Your task to perform on an android device: open a bookmark in the chrome app Image 0: 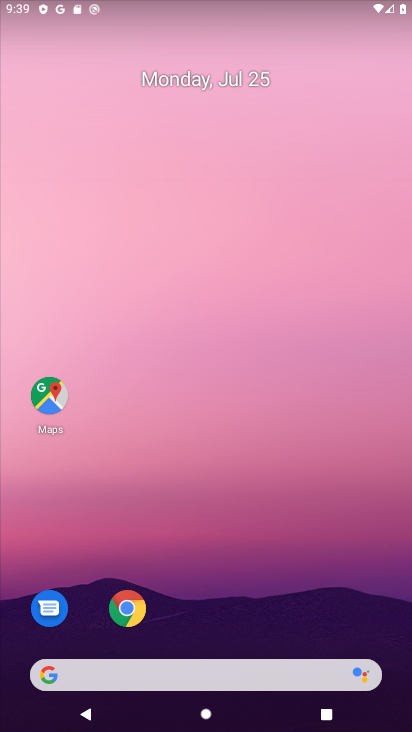
Step 0: drag from (227, 657) to (287, 145)
Your task to perform on an android device: open a bookmark in the chrome app Image 1: 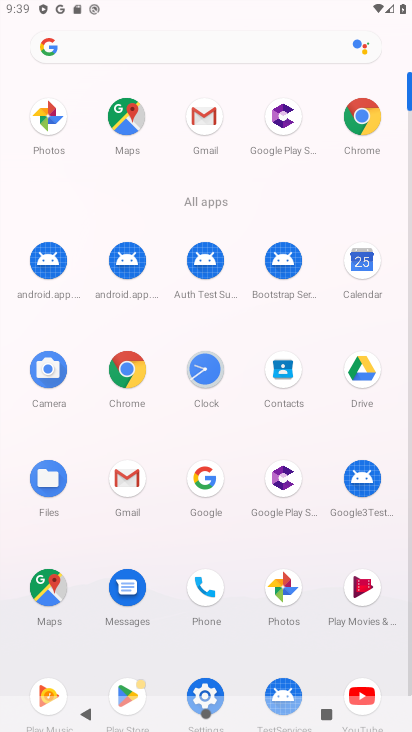
Step 1: click (361, 134)
Your task to perform on an android device: open a bookmark in the chrome app Image 2: 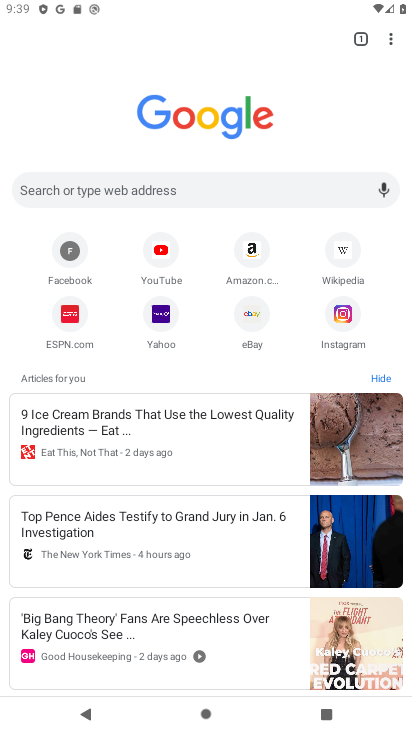
Step 2: click (391, 42)
Your task to perform on an android device: open a bookmark in the chrome app Image 3: 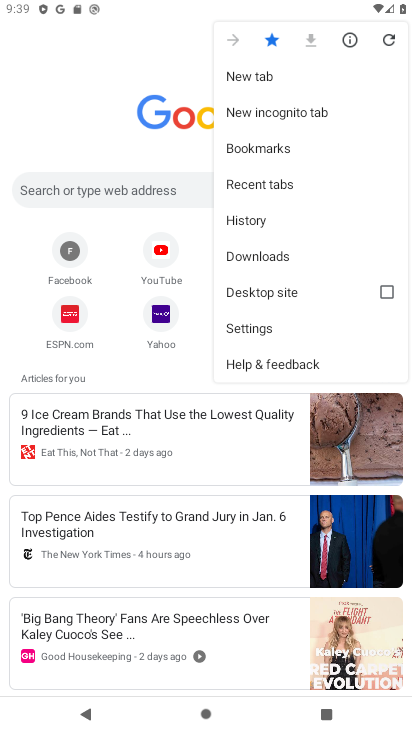
Step 3: click (269, 147)
Your task to perform on an android device: open a bookmark in the chrome app Image 4: 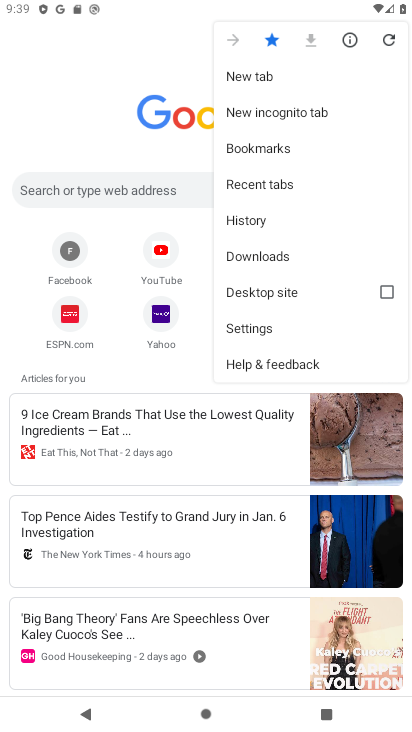
Step 4: click (269, 147)
Your task to perform on an android device: open a bookmark in the chrome app Image 5: 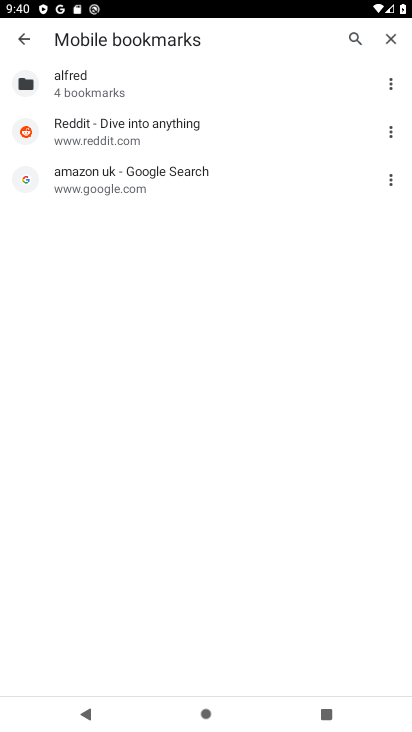
Step 5: click (157, 114)
Your task to perform on an android device: open a bookmark in the chrome app Image 6: 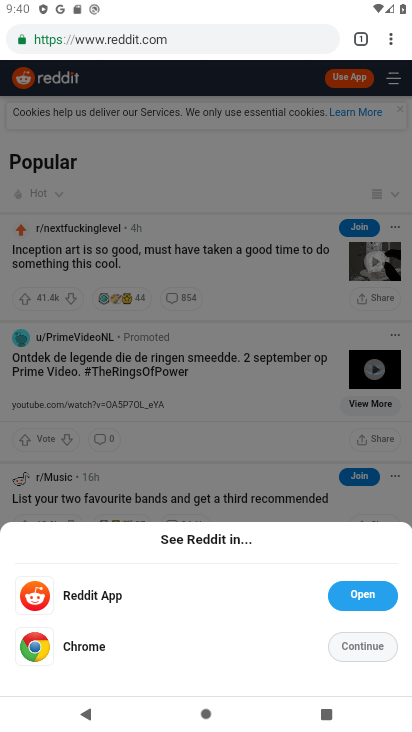
Step 6: task complete